Your task to perform on an android device: delete browsing data in the chrome app Image 0: 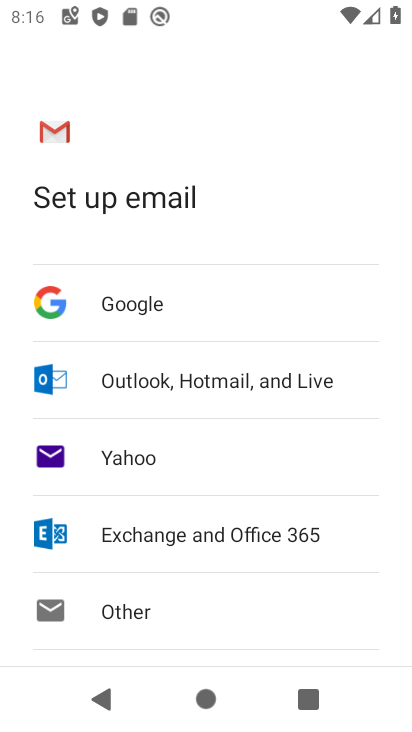
Step 0: press home button
Your task to perform on an android device: delete browsing data in the chrome app Image 1: 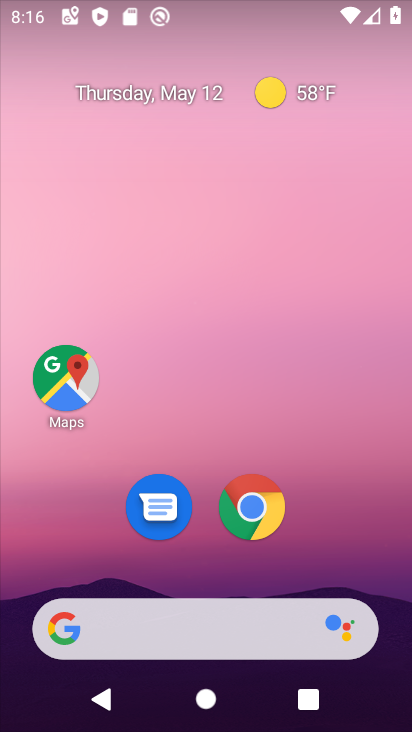
Step 1: click (249, 526)
Your task to perform on an android device: delete browsing data in the chrome app Image 2: 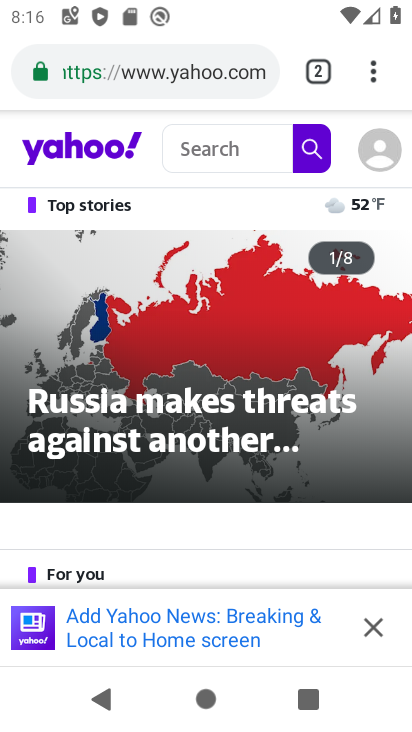
Step 2: drag from (372, 64) to (117, 388)
Your task to perform on an android device: delete browsing data in the chrome app Image 3: 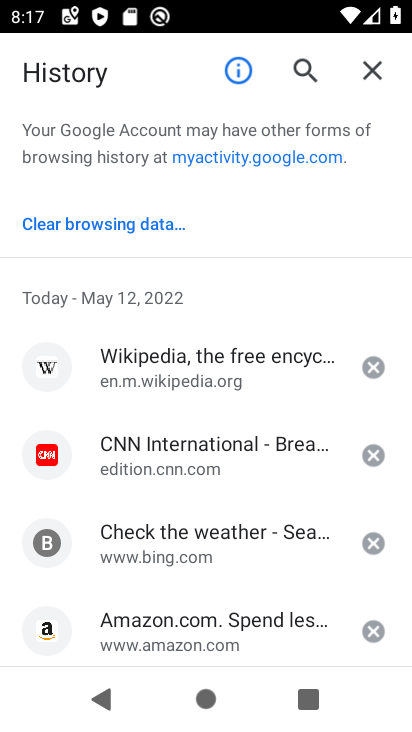
Step 3: click (135, 216)
Your task to perform on an android device: delete browsing data in the chrome app Image 4: 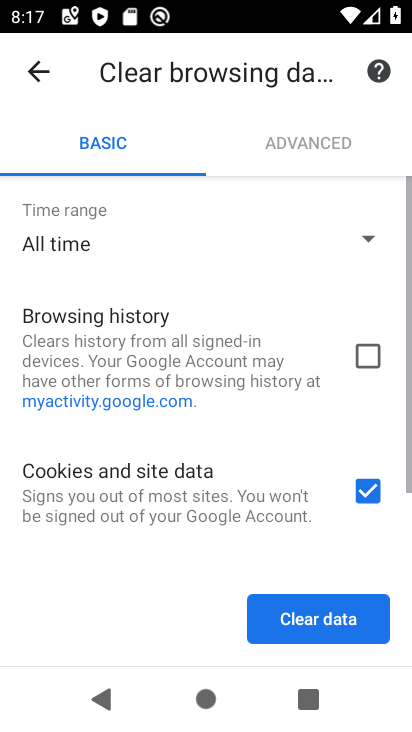
Step 4: click (359, 366)
Your task to perform on an android device: delete browsing data in the chrome app Image 5: 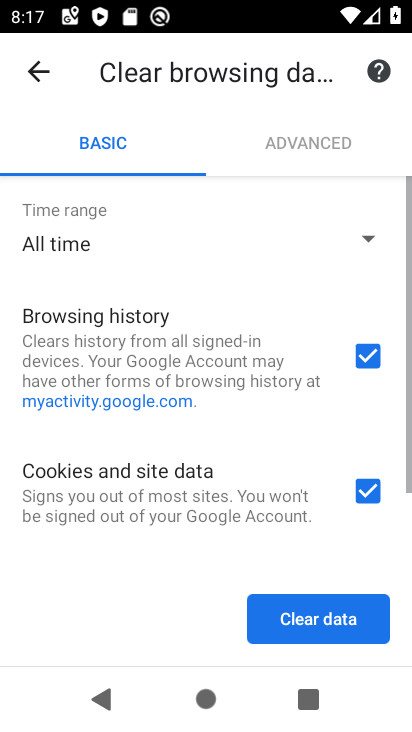
Step 5: click (303, 624)
Your task to perform on an android device: delete browsing data in the chrome app Image 6: 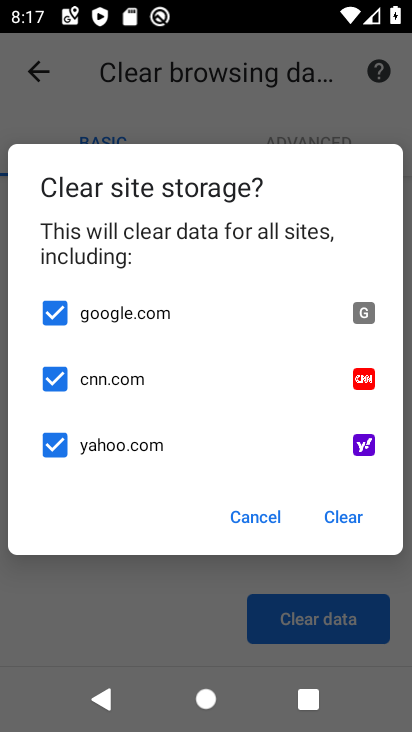
Step 6: click (341, 528)
Your task to perform on an android device: delete browsing data in the chrome app Image 7: 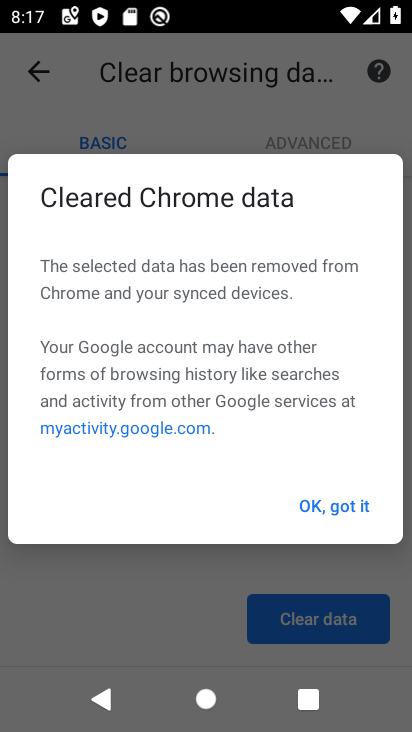
Step 7: click (316, 513)
Your task to perform on an android device: delete browsing data in the chrome app Image 8: 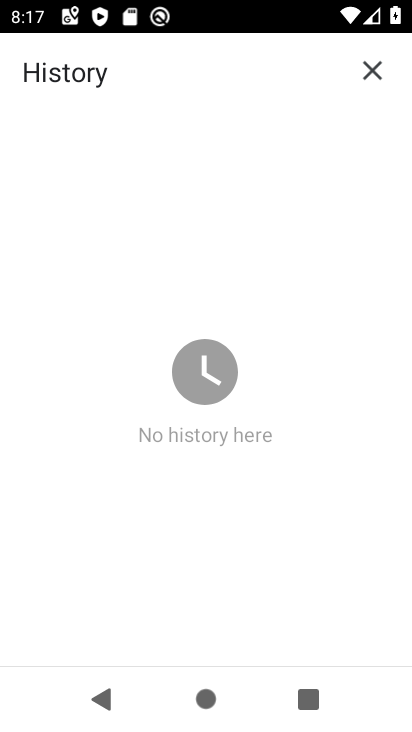
Step 8: task complete